Your task to perform on an android device: change keyboard looks Image 0: 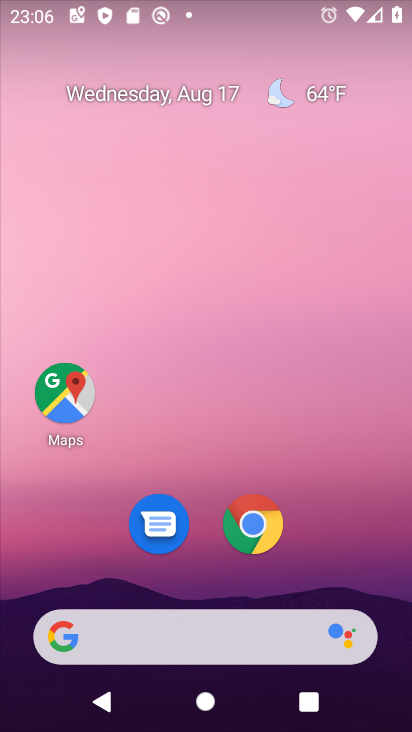
Step 0: drag from (206, 441) to (238, 0)
Your task to perform on an android device: change keyboard looks Image 1: 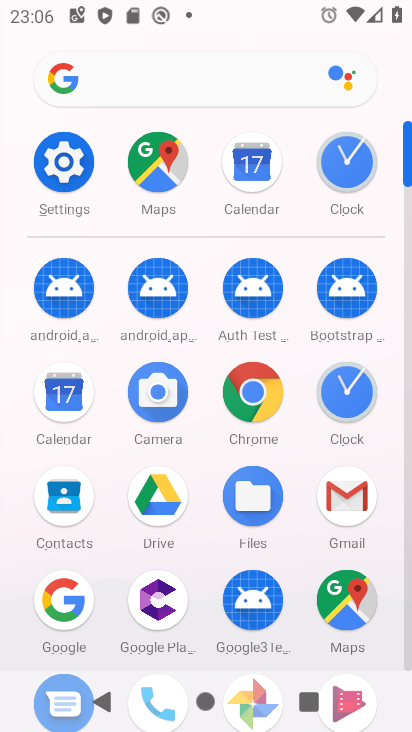
Step 1: click (67, 157)
Your task to perform on an android device: change keyboard looks Image 2: 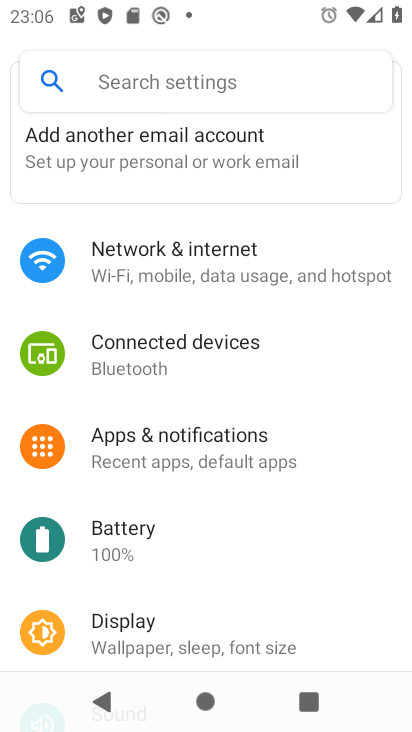
Step 2: drag from (217, 544) to (202, 62)
Your task to perform on an android device: change keyboard looks Image 3: 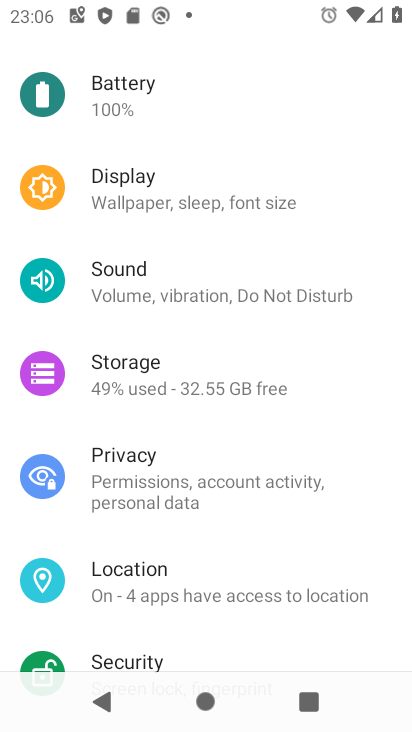
Step 3: drag from (234, 572) to (218, 17)
Your task to perform on an android device: change keyboard looks Image 4: 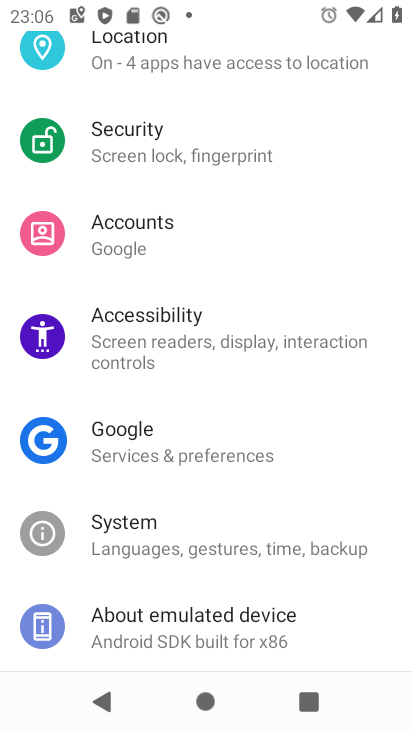
Step 4: click (227, 539)
Your task to perform on an android device: change keyboard looks Image 5: 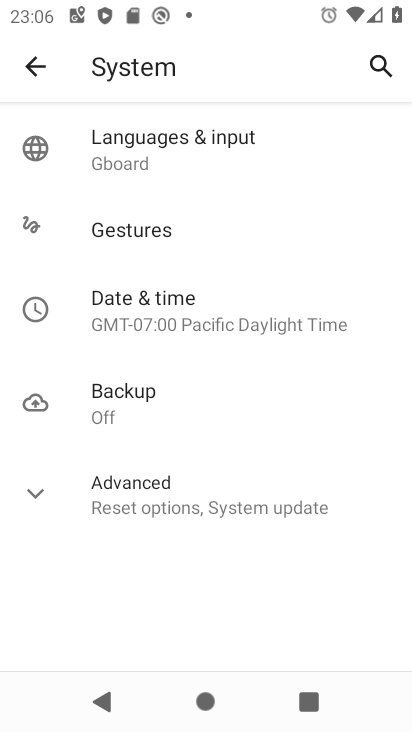
Step 5: click (198, 146)
Your task to perform on an android device: change keyboard looks Image 6: 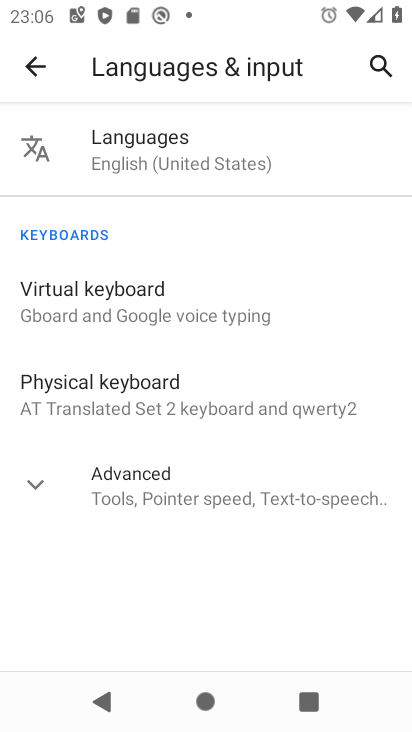
Step 6: click (161, 313)
Your task to perform on an android device: change keyboard looks Image 7: 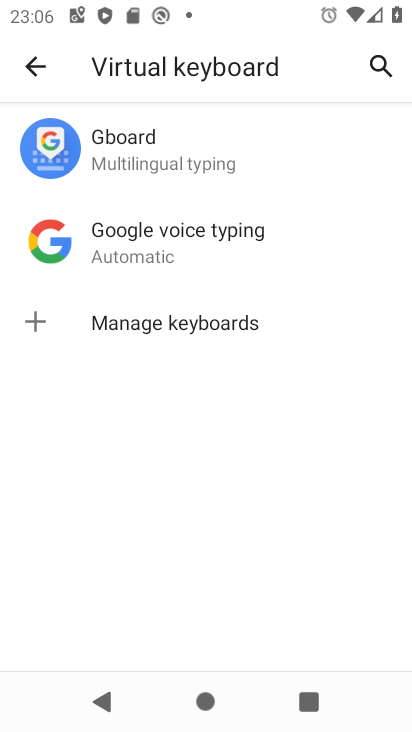
Step 7: click (149, 145)
Your task to perform on an android device: change keyboard looks Image 8: 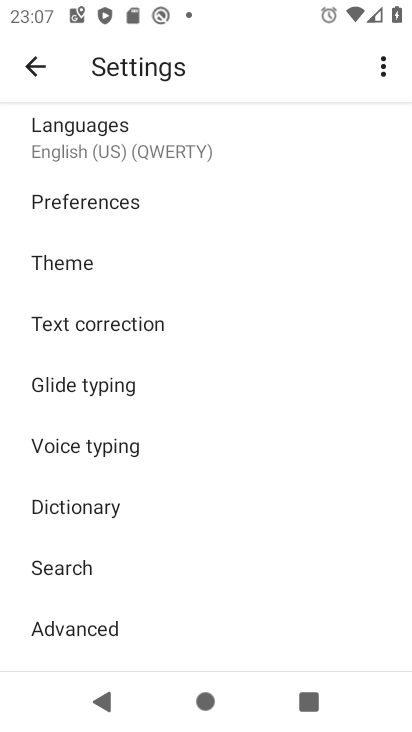
Step 8: click (75, 255)
Your task to perform on an android device: change keyboard looks Image 9: 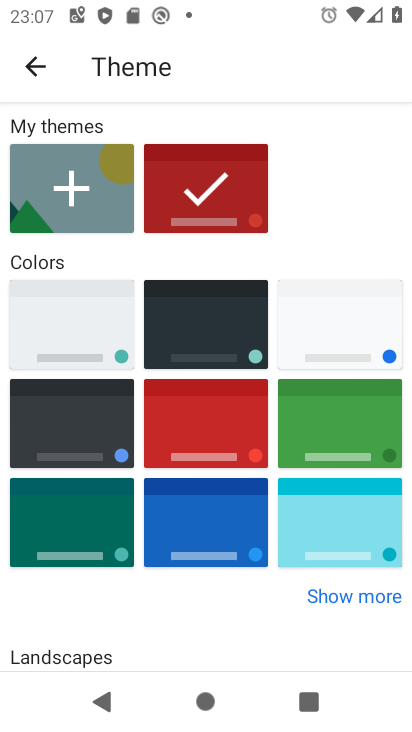
Step 9: click (75, 315)
Your task to perform on an android device: change keyboard looks Image 10: 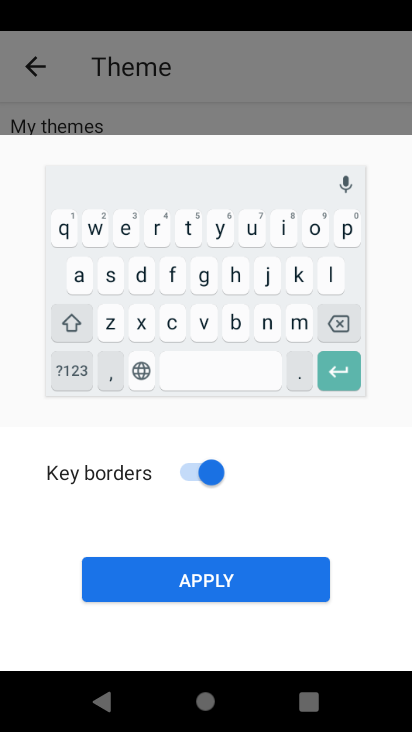
Step 10: click (222, 579)
Your task to perform on an android device: change keyboard looks Image 11: 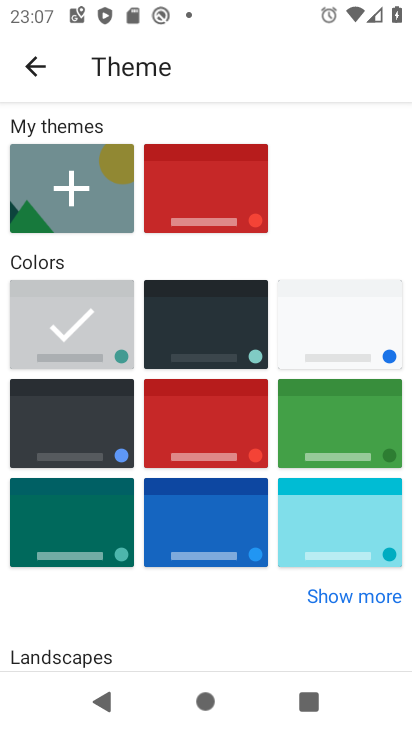
Step 11: task complete